Your task to perform on an android device: Open the phone app and click the voicemail tab. Image 0: 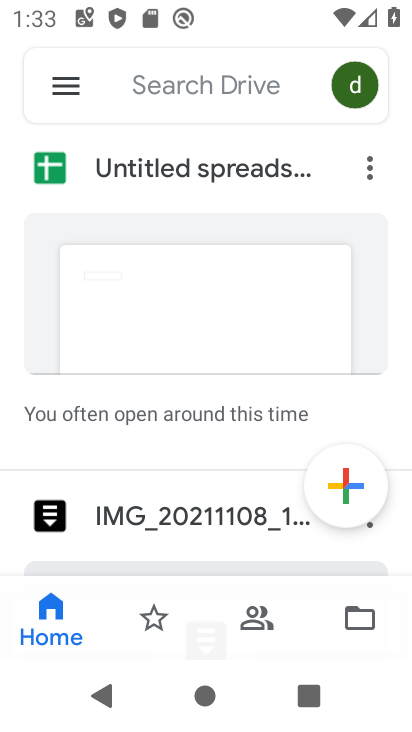
Step 0: press home button
Your task to perform on an android device: Open the phone app and click the voicemail tab. Image 1: 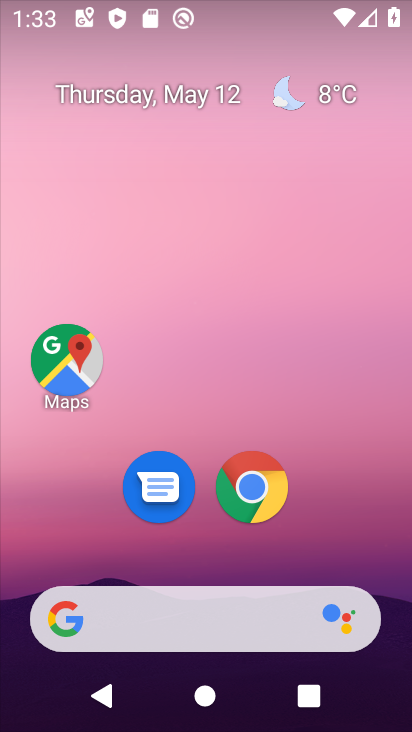
Step 1: drag from (233, 553) to (196, 55)
Your task to perform on an android device: Open the phone app and click the voicemail tab. Image 2: 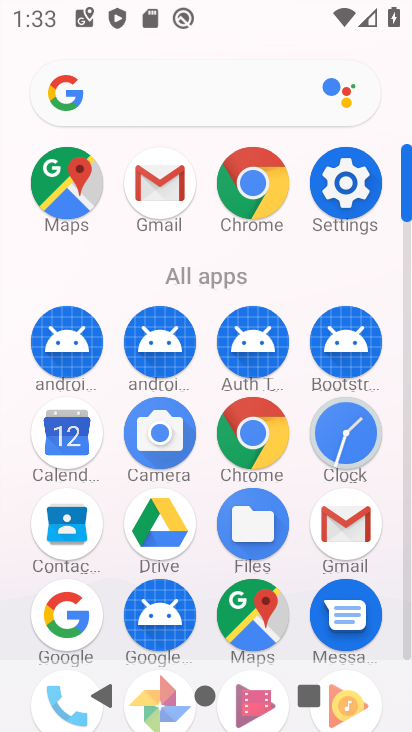
Step 2: drag from (106, 567) to (94, 152)
Your task to perform on an android device: Open the phone app and click the voicemail tab. Image 3: 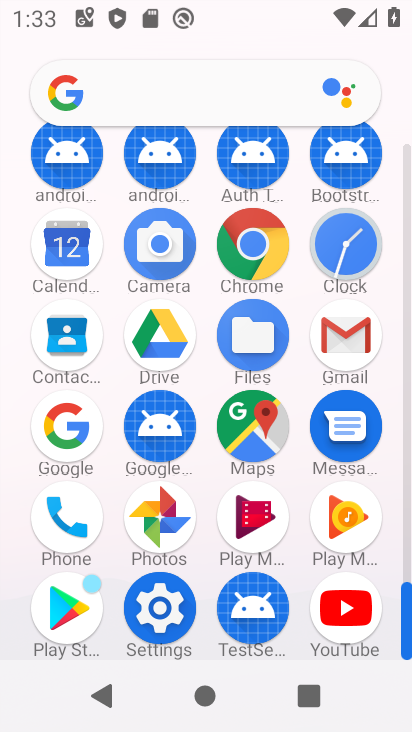
Step 3: click (59, 524)
Your task to perform on an android device: Open the phone app and click the voicemail tab. Image 4: 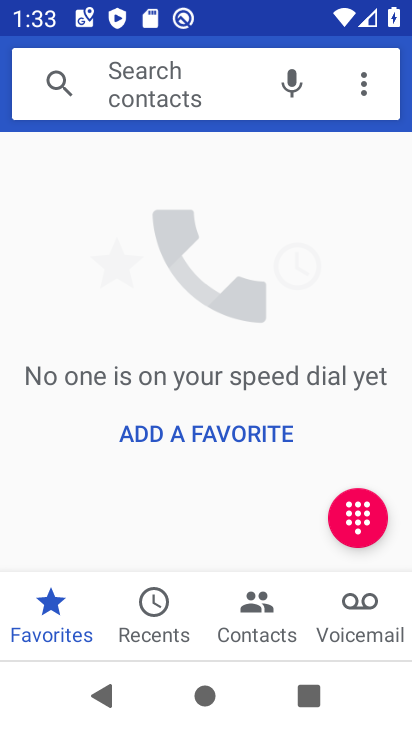
Step 4: click (364, 642)
Your task to perform on an android device: Open the phone app and click the voicemail tab. Image 5: 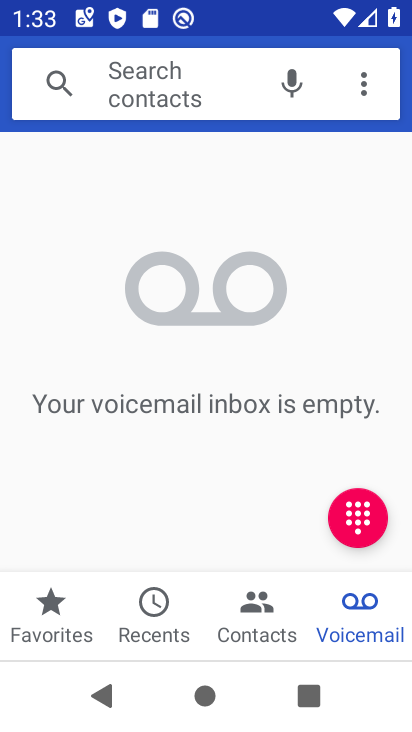
Step 5: task complete